Your task to perform on an android device: turn on priority inbox in the gmail app Image 0: 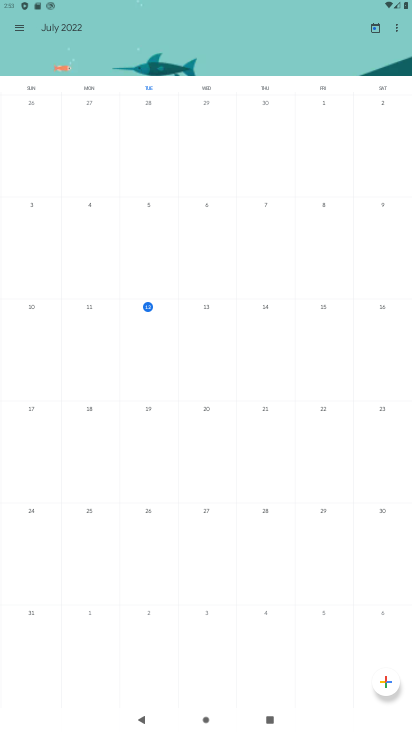
Step 0: press home button
Your task to perform on an android device: turn on priority inbox in the gmail app Image 1: 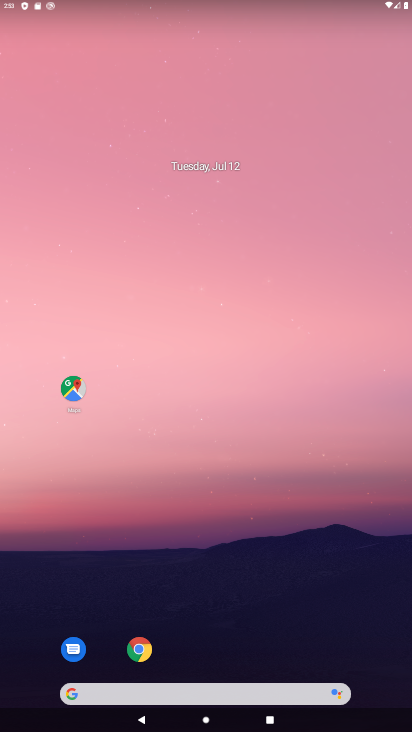
Step 1: drag from (177, 675) to (173, 98)
Your task to perform on an android device: turn on priority inbox in the gmail app Image 2: 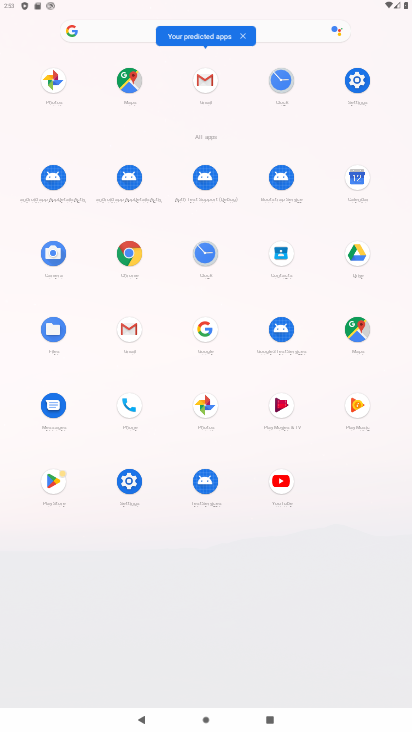
Step 2: click (130, 330)
Your task to perform on an android device: turn on priority inbox in the gmail app Image 3: 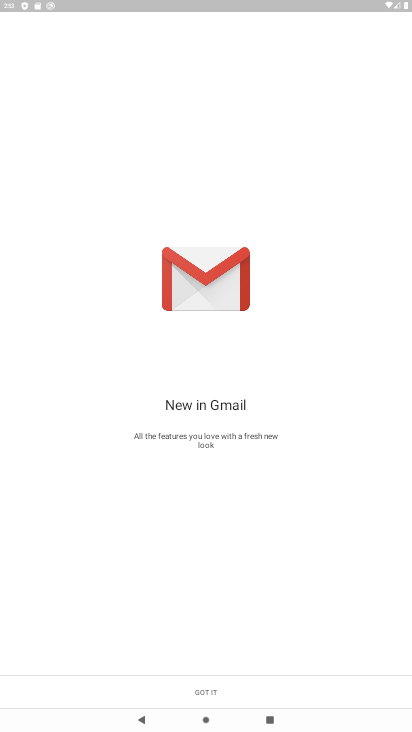
Step 3: click (190, 695)
Your task to perform on an android device: turn on priority inbox in the gmail app Image 4: 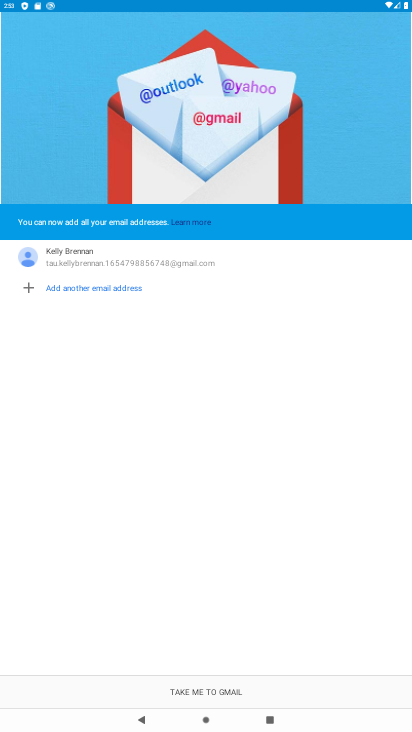
Step 4: click (190, 695)
Your task to perform on an android device: turn on priority inbox in the gmail app Image 5: 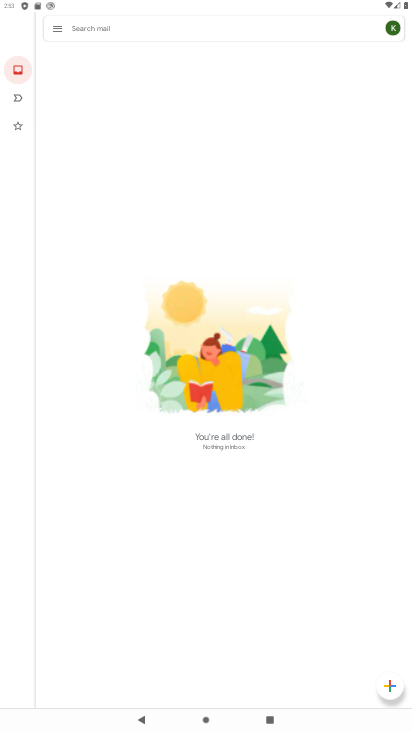
Step 5: click (57, 25)
Your task to perform on an android device: turn on priority inbox in the gmail app Image 6: 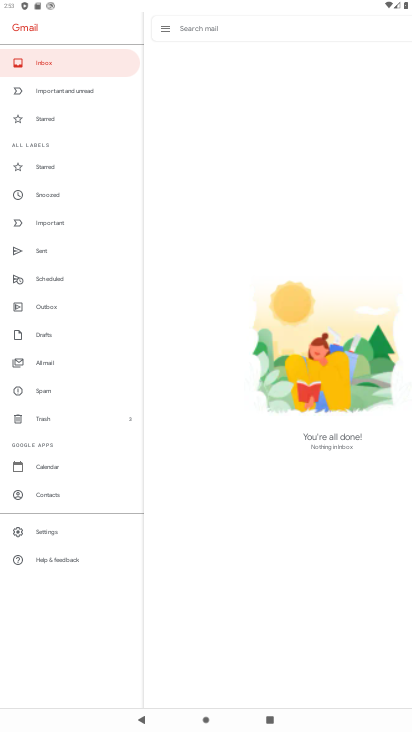
Step 6: click (44, 527)
Your task to perform on an android device: turn on priority inbox in the gmail app Image 7: 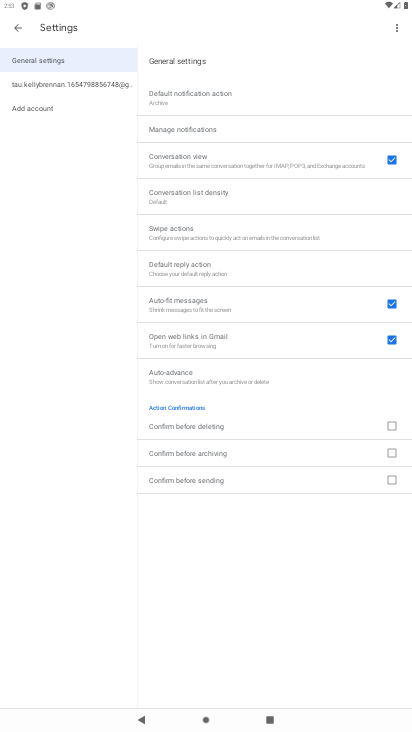
Step 7: click (59, 79)
Your task to perform on an android device: turn on priority inbox in the gmail app Image 8: 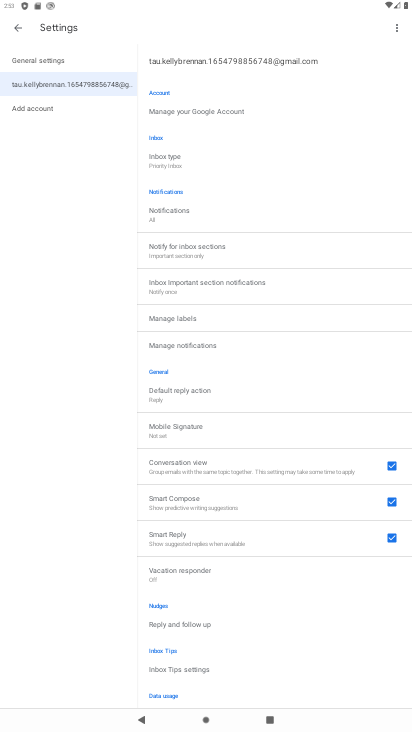
Step 8: click (174, 161)
Your task to perform on an android device: turn on priority inbox in the gmail app Image 9: 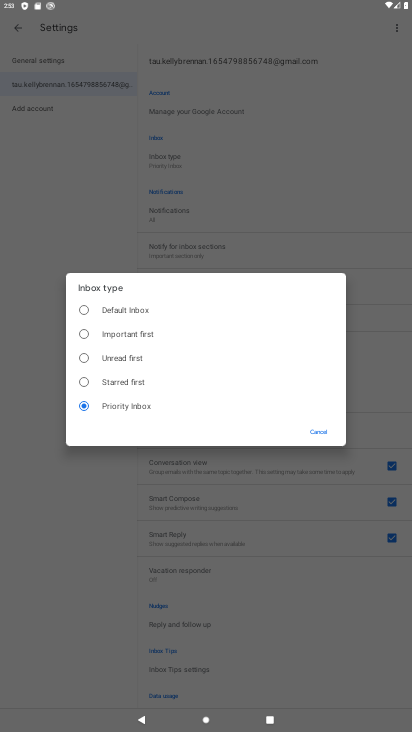
Step 9: click (129, 401)
Your task to perform on an android device: turn on priority inbox in the gmail app Image 10: 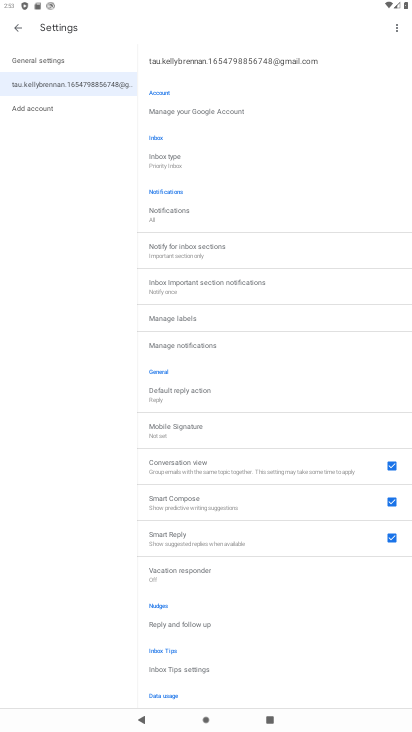
Step 10: task complete